Your task to perform on an android device: Turn on the flashlight Image 0: 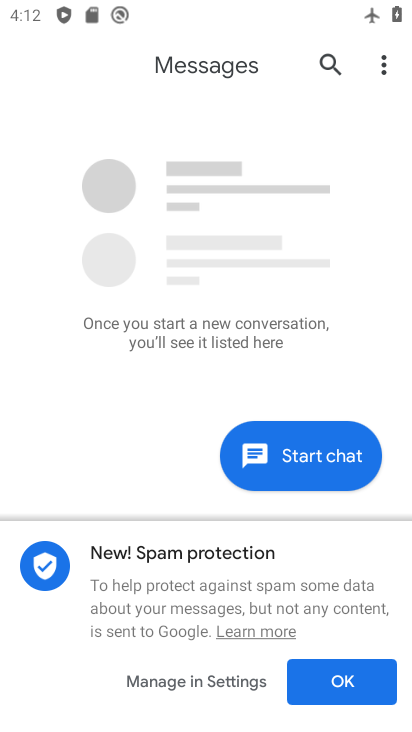
Step 0: drag from (347, 7) to (357, 404)
Your task to perform on an android device: Turn on the flashlight Image 1: 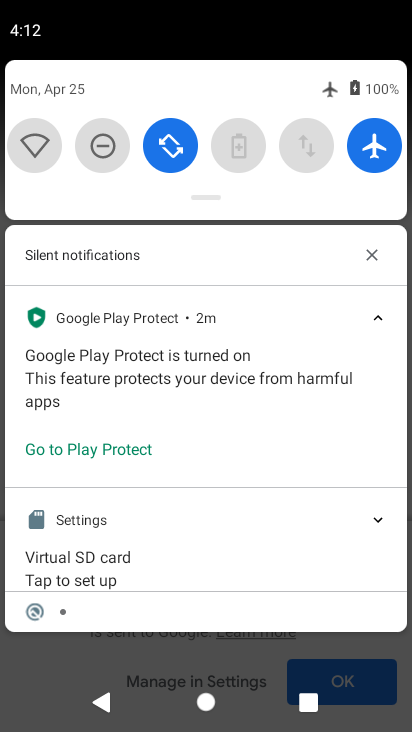
Step 1: drag from (217, 175) to (274, 548)
Your task to perform on an android device: Turn on the flashlight Image 2: 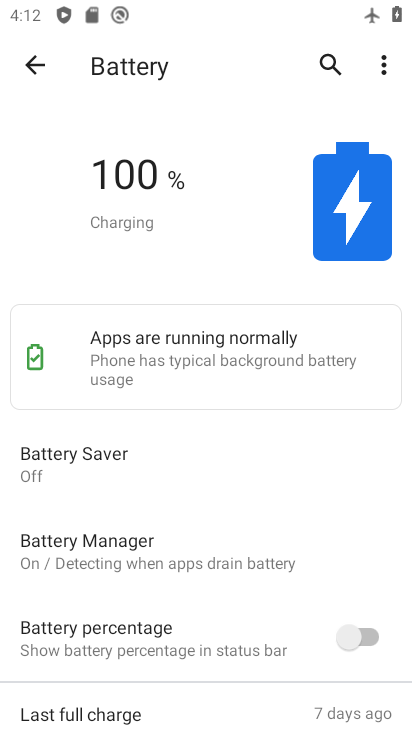
Step 2: drag from (255, 10) to (346, 476)
Your task to perform on an android device: Turn on the flashlight Image 3: 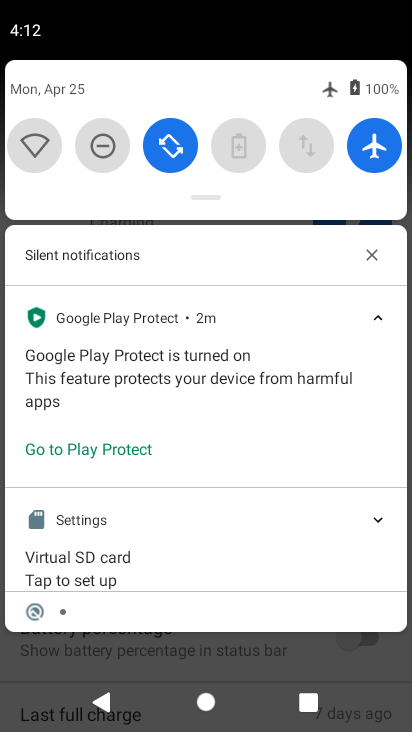
Step 3: drag from (348, 194) to (355, 406)
Your task to perform on an android device: Turn on the flashlight Image 4: 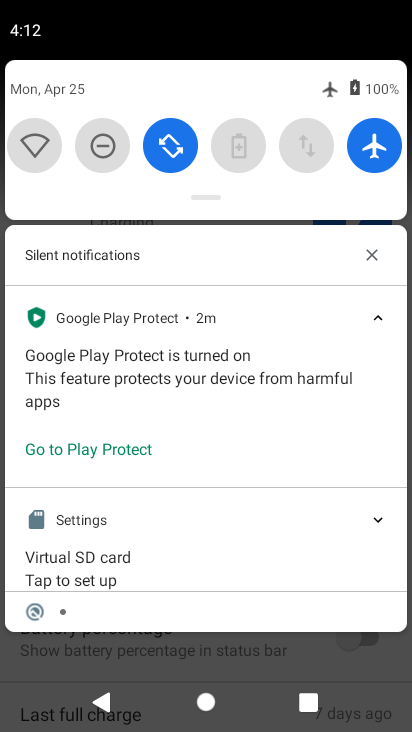
Step 4: drag from (267, 186) to (367, 691)
Your task to perform on an android device: Turn on the flashlight Image 5: 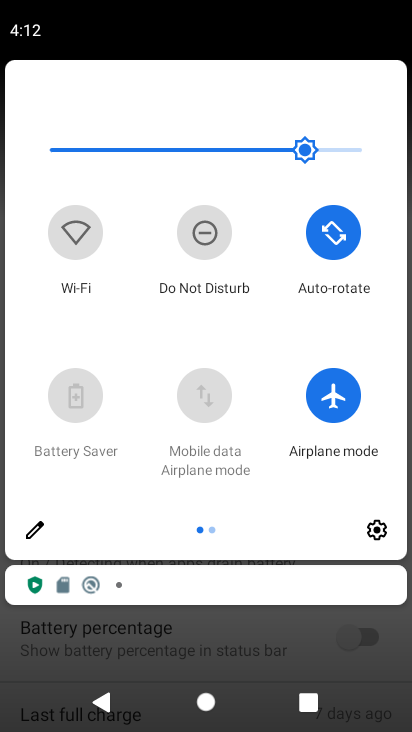
Step 5: drag from (388, 321) to (41, 310)
Your task to perform on an android device: Turn on the flashlight Image 6: 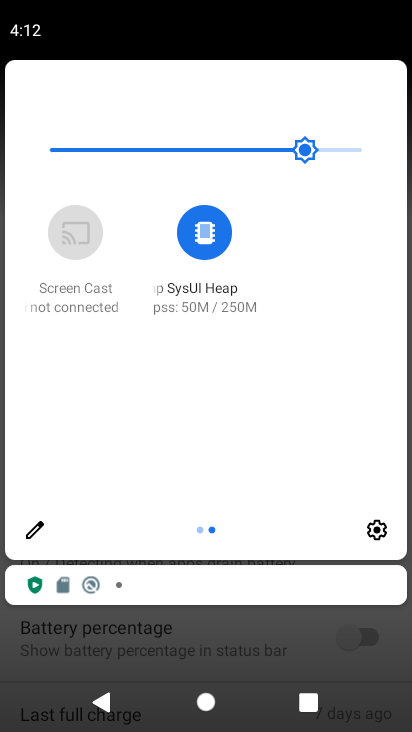
Step 6: click (35, 536)
Your task to perform on an android device: Turn on the flashlight Image 7: 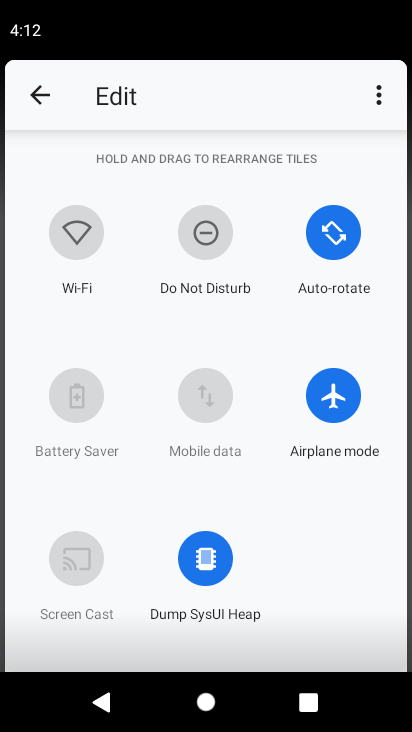
Step 7: task complete